Your task to perform on an android device: Open sound settings Image 0: 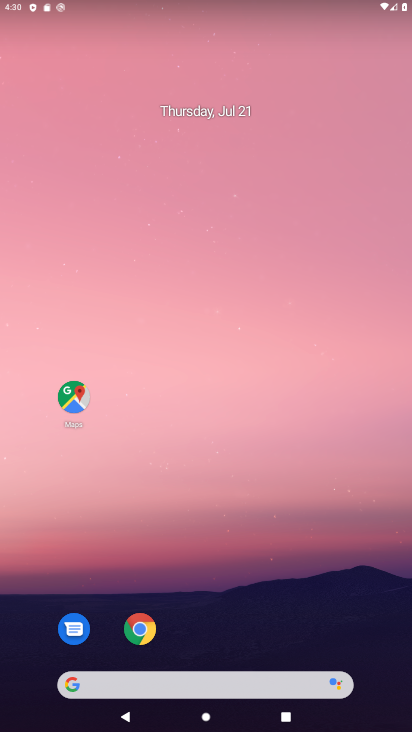
Step 0: drag from (246, 624) to (209, 86)
Your task to perform on an android device: Open sound settings Image 1: 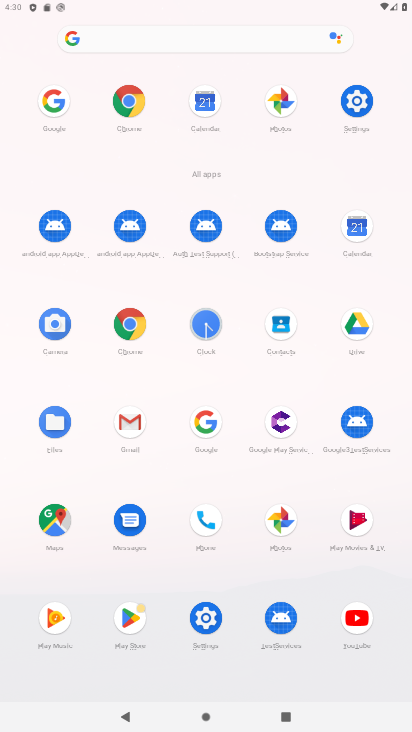
Step 1: click (368, 101)
Your task to perform on an android device: Open sound settings Image 2: 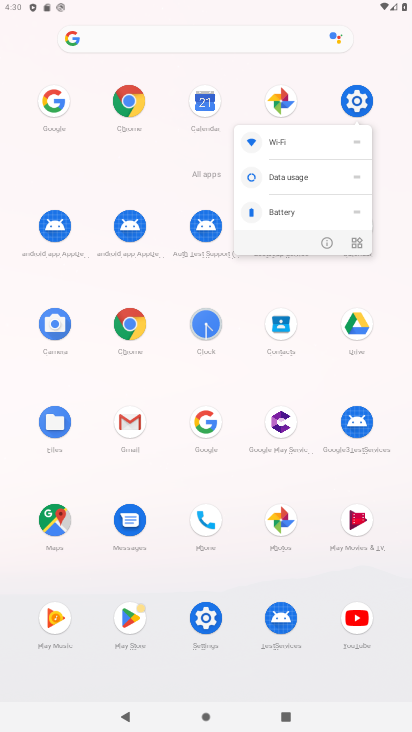
Step 2: click (354, 94)
Your task to perform on an android device: Open sound settings Image 3: 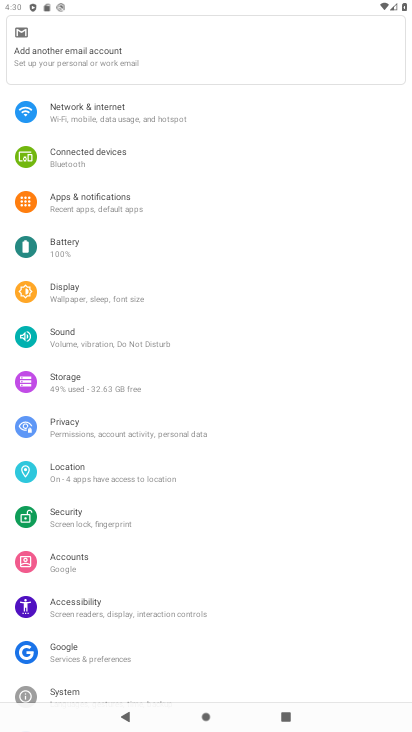
Step 3: click (79, 333)
Your task to perform on an android device: Open sound settings Image 4: 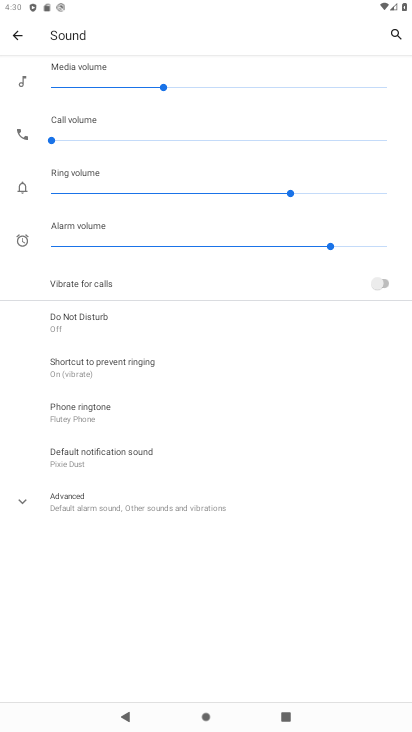
Step 4: click (19, 496)
Your task to perform on an android device: Open sound settings Image 5: 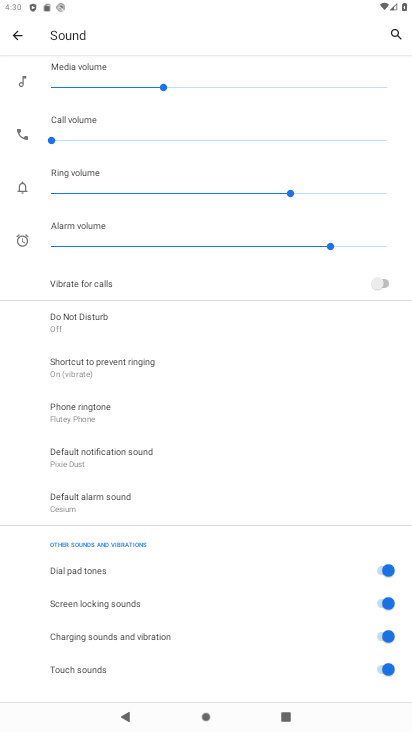
Step 5: task complete